Your task to perform on an android device: check android version Image 0: 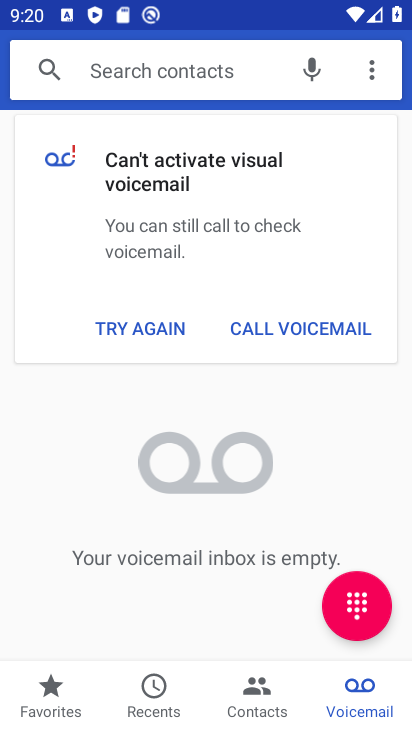
Step 0: press home button
Your task to perform on an android device: check android version Image 1: 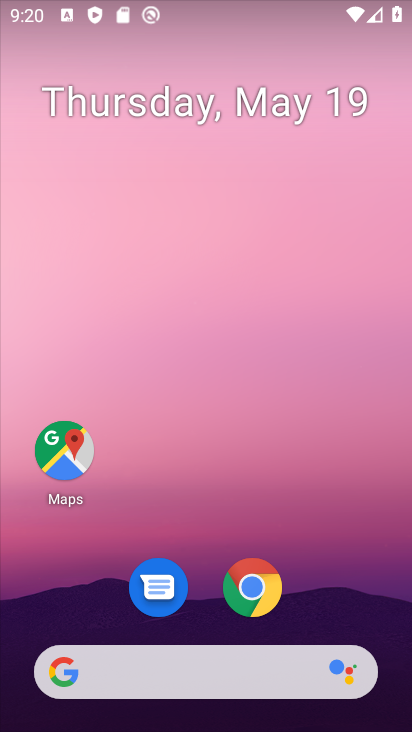
Step 1: drag from (350, 494) to (318, 6)
Your task to perform on an android device: check android version Image 2: 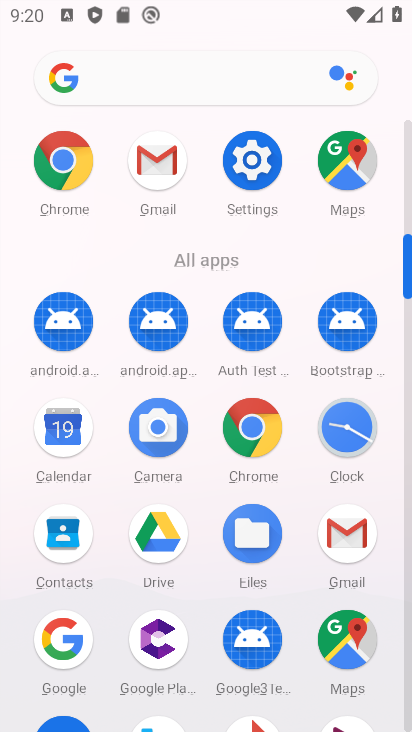
Step 2: click (242, 172)
Your task to perform on an android device: check android version Image 3: 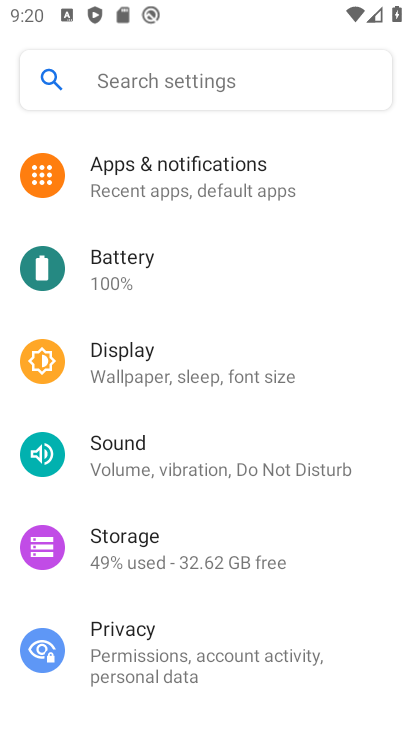
Step 3: drag from (194, 517) to (234, 46)
Your task to perform on an android device: check android version Image 4: 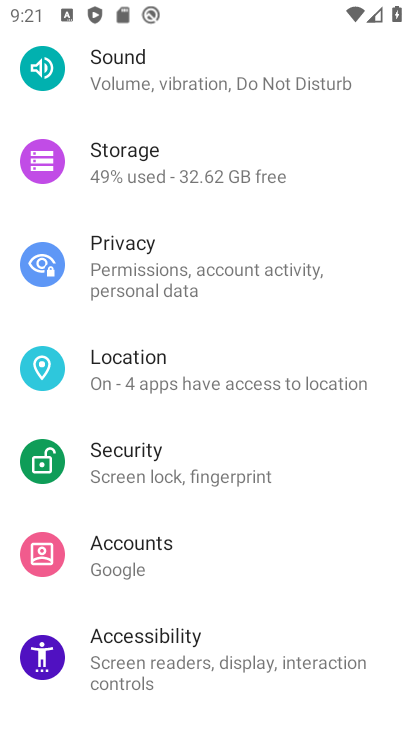
Step 4: drag from (271, 591) to (280, 285)
Your task to perform on an android device: check android version Image 5: 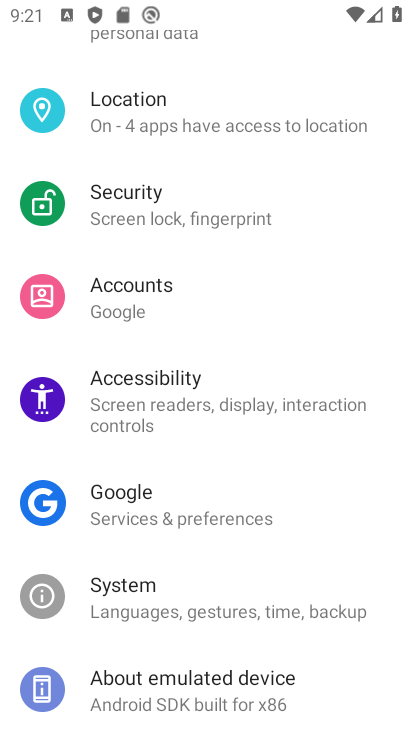
Step 5: drag from (253, 644) to (300, 212)
Your task to perform on an android device: check android version Image 6: 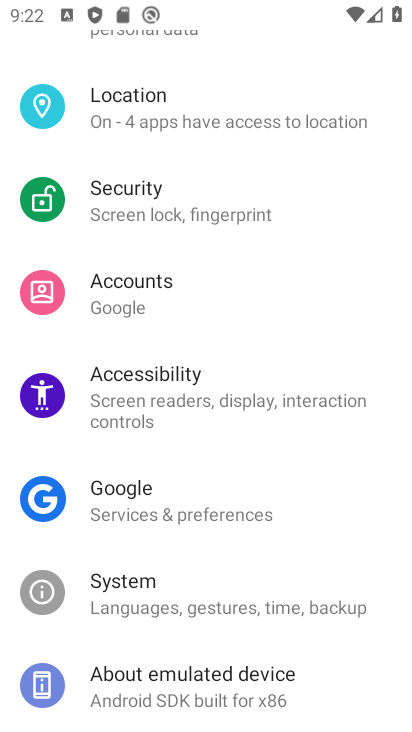
Step 6: click (202, 691)
Your task to perform on an android device: check android version Image 7: 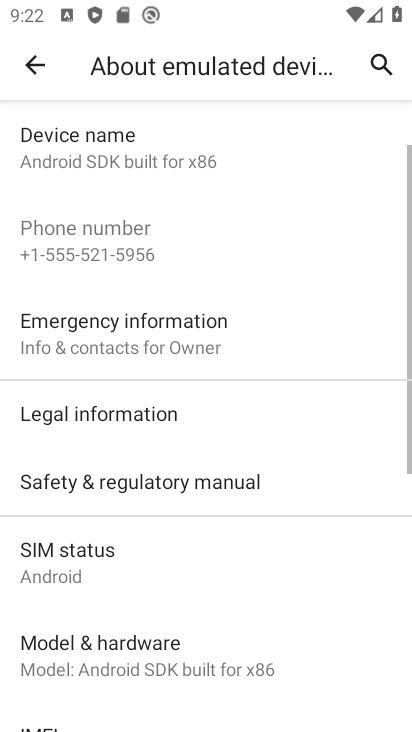
Step 7: drag from (177, 683) to (207, 201)
Your task to perform on an android device: check android version Image 8: 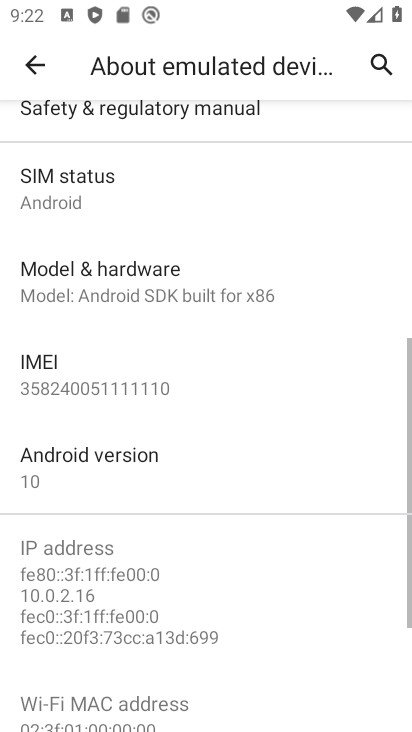
Step 8: drag from (167, 675) to (174, 211)
Your task to perform on an android device: check android version Image 9: 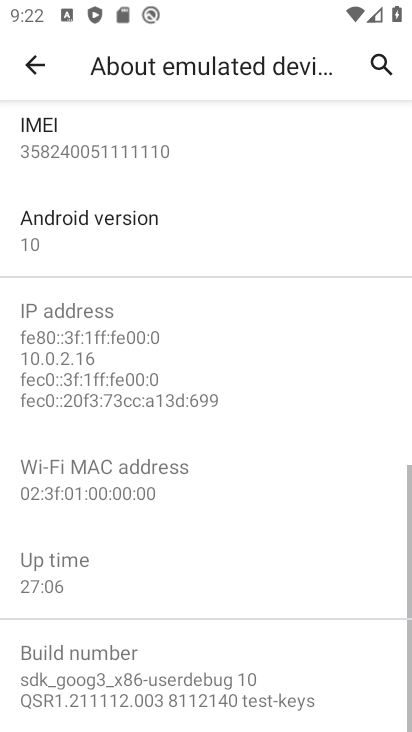
Step 9: click (65, 222)
Your task to perform on an android device: check android version Image 10: 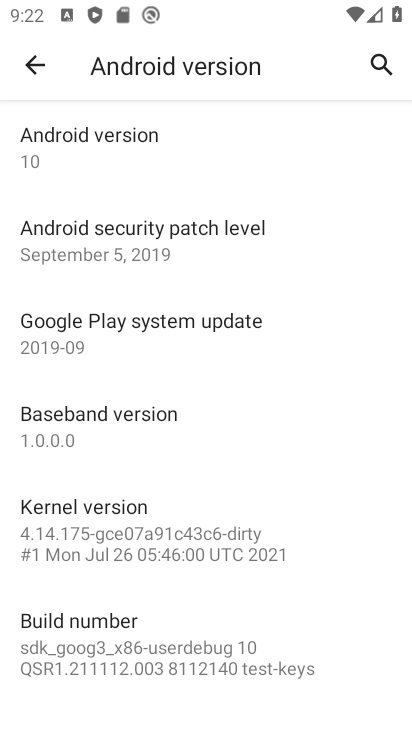
Step 10: task complete